Your task to perform on an android device: check android version Image 0: 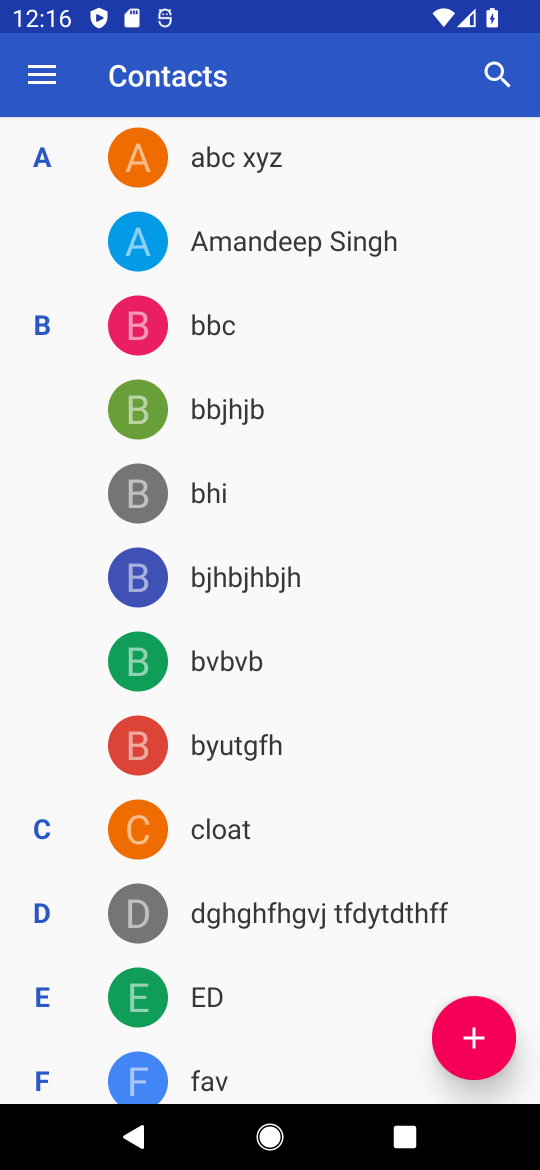
Step 0: press back button
Your task to perform on an android device: check android version Image 1: 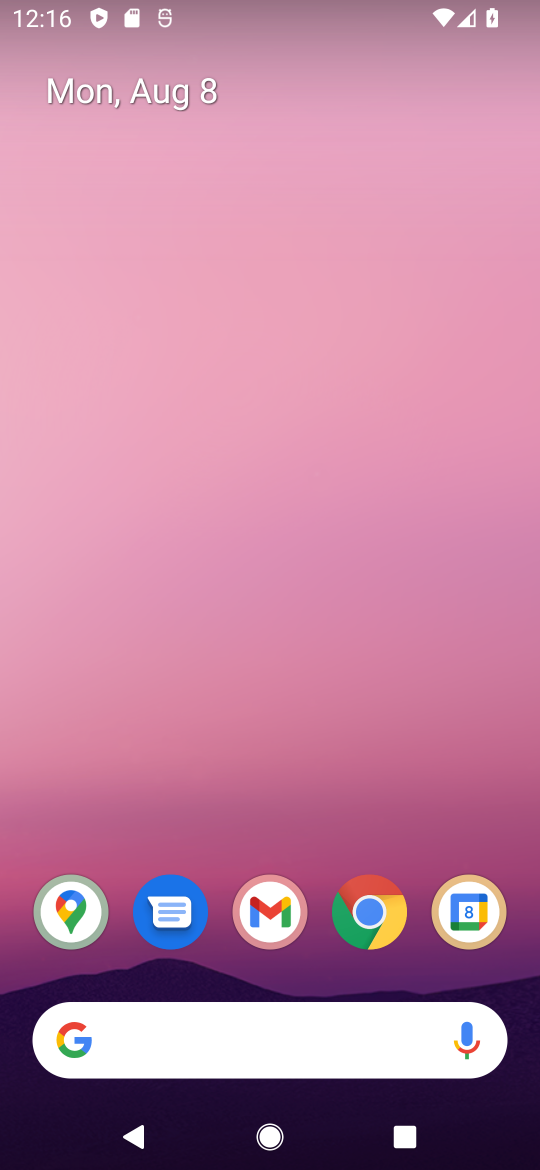
Step 1: drag from (287, 536) to (360, 10)
Your task to perform on an android device: check android version Image 2: 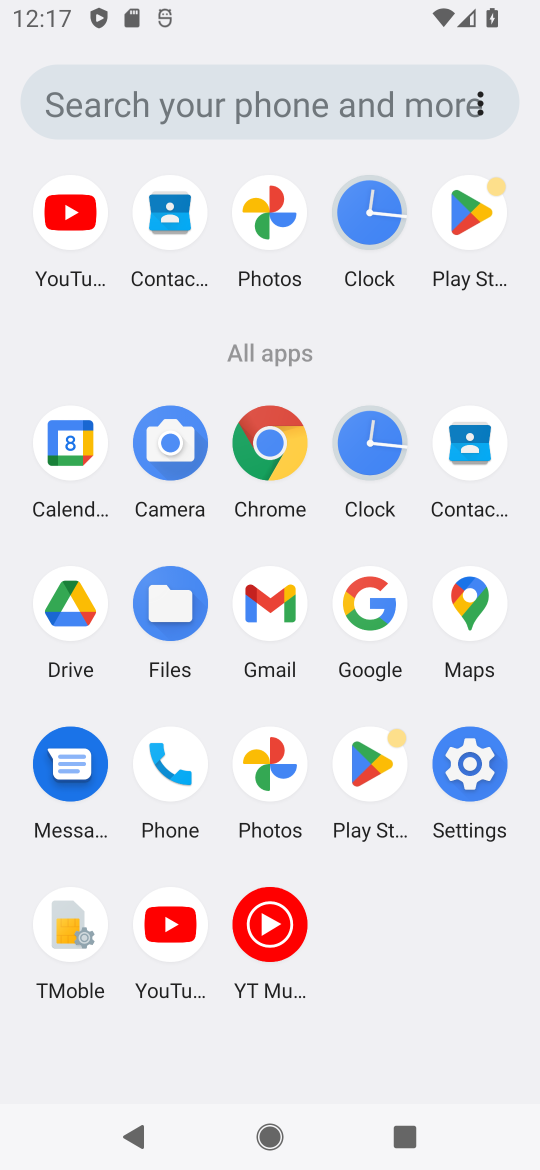
Step 2: click (474, 782)
Your task to perform on an android device: check android version Image 3: 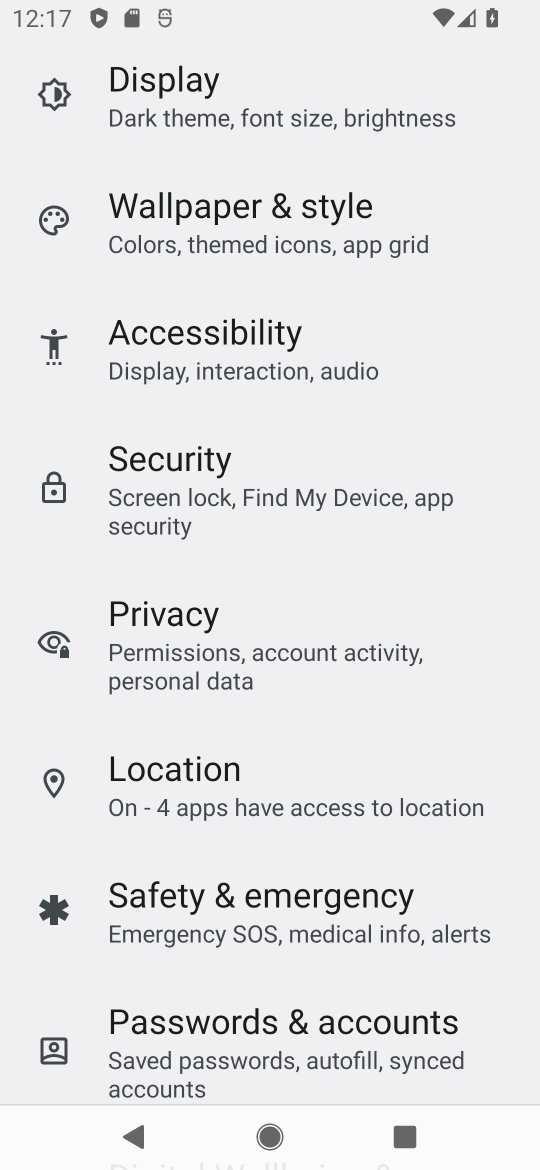
Step 3: drag from (303, 170) to (237, 1128)
Your task to perform on an android device: check android version Image 4: 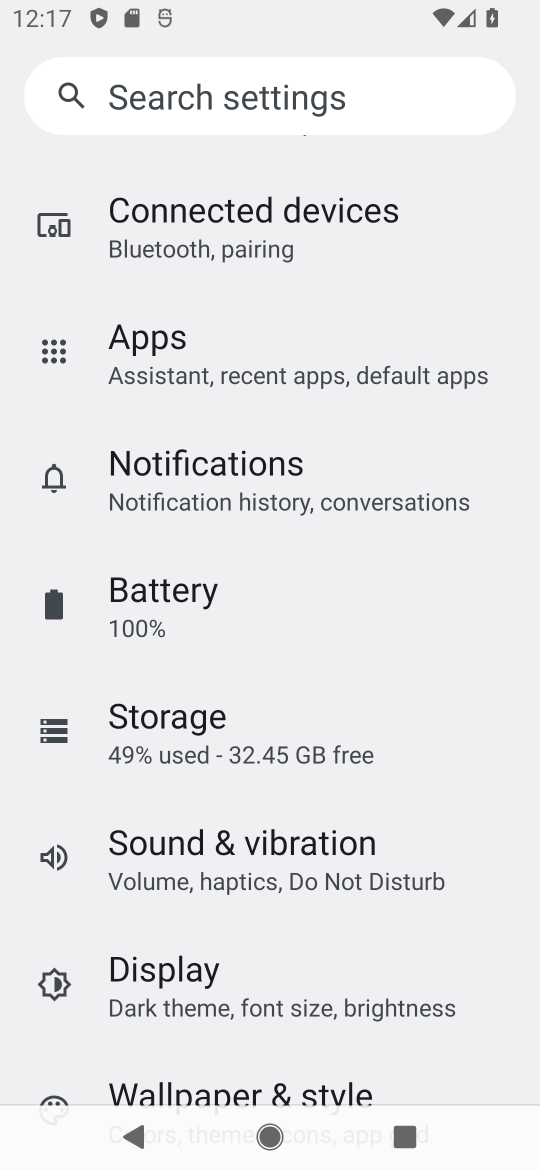
Step 4: drag from (367, 340) to (298, 1119)
Your task to perform on an android device: check android version Image 5: 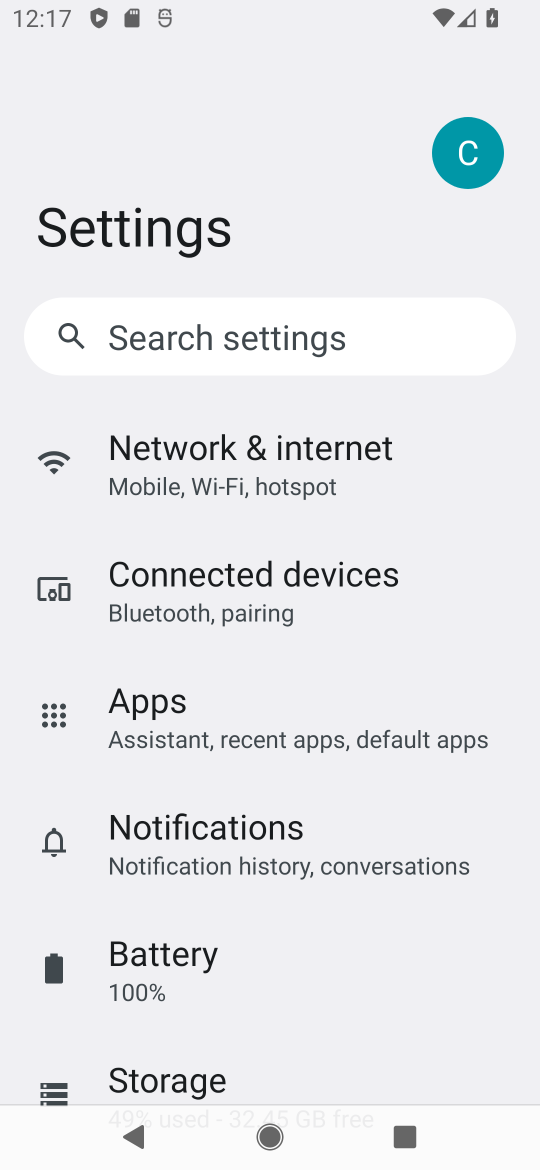
Step 5: drag from (211, 1063) to (334, 126)
Your task to perform on an android device: check android version Image 6: 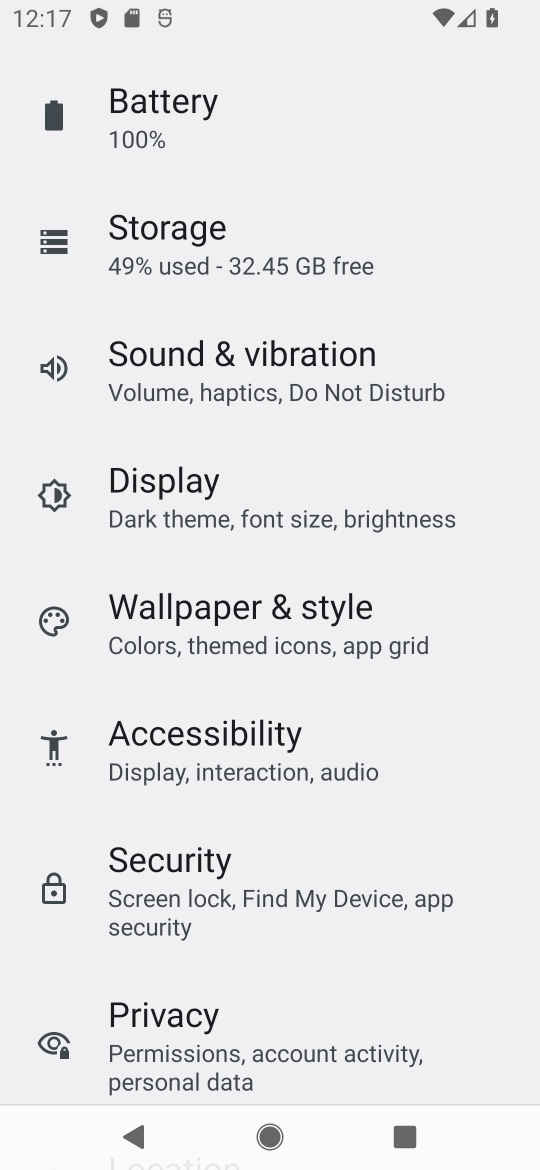
Step 6: drag from (213, 1063) to (380, 109)
Your task to perform on an android device: check android version Image 7: 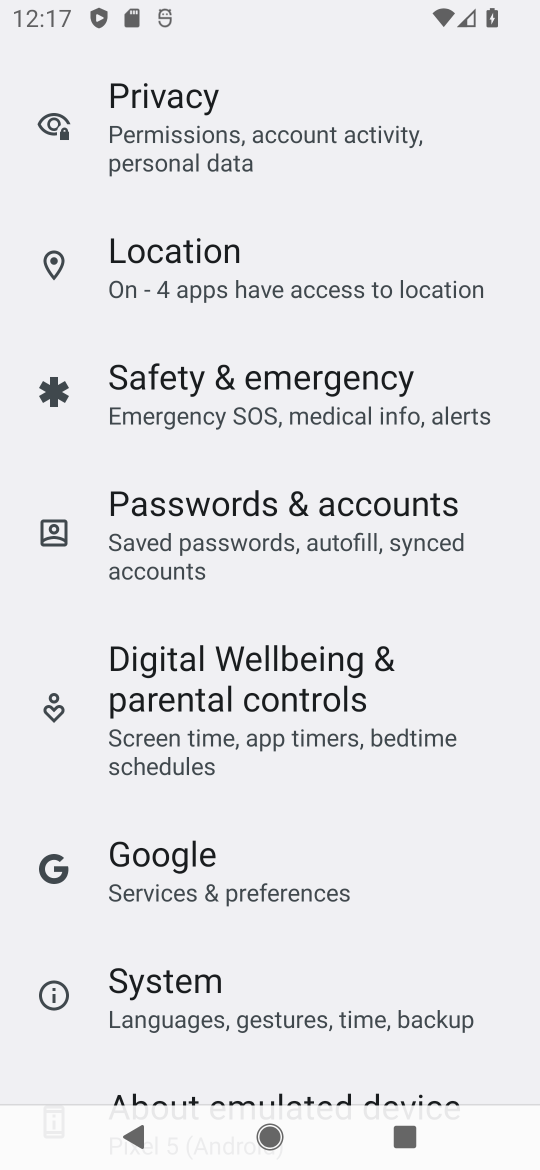
Step 7: drag from (285, 1018) to (396, 27)
Your task to perform on an android device: check android version Image 8: 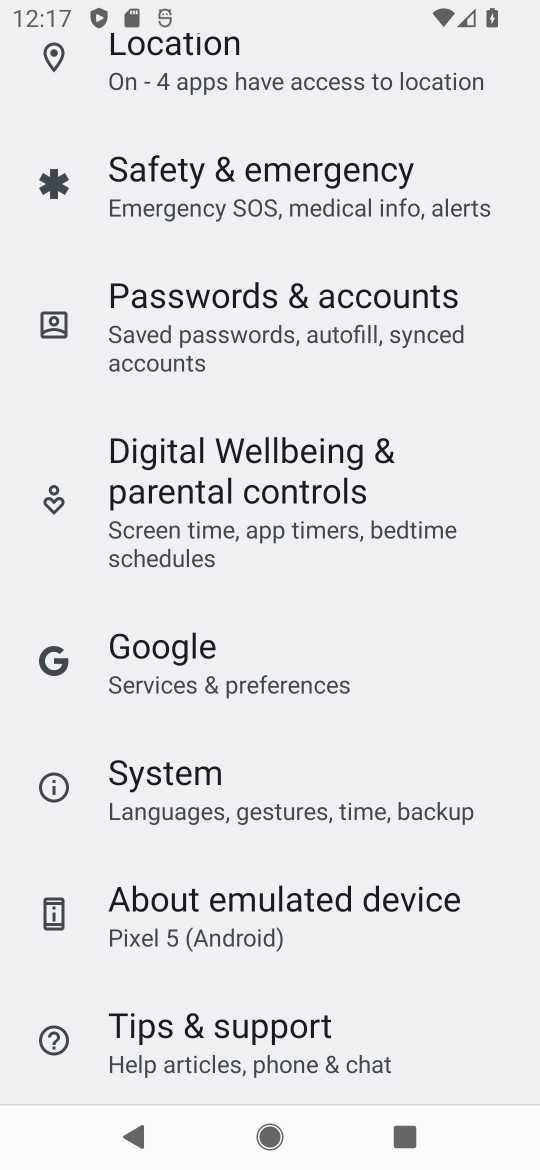
Step 8: click (235, 903)
Your task to perform on an android device: check android version Image 9: 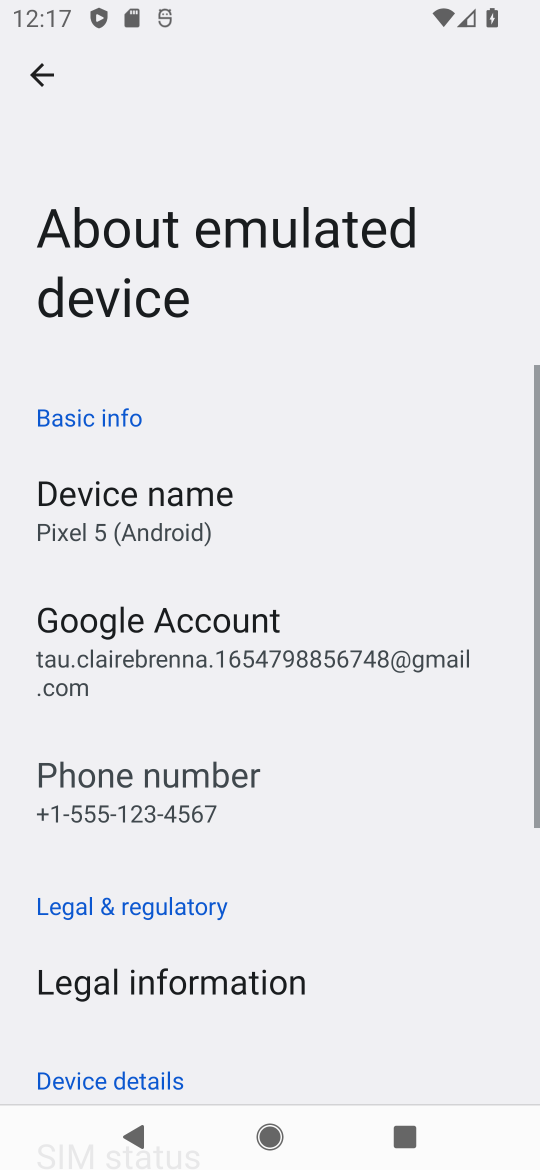
Step 9: drag from (182, 1001) to (314, 264)
Your task to perform on an android device: check android version Image 10: 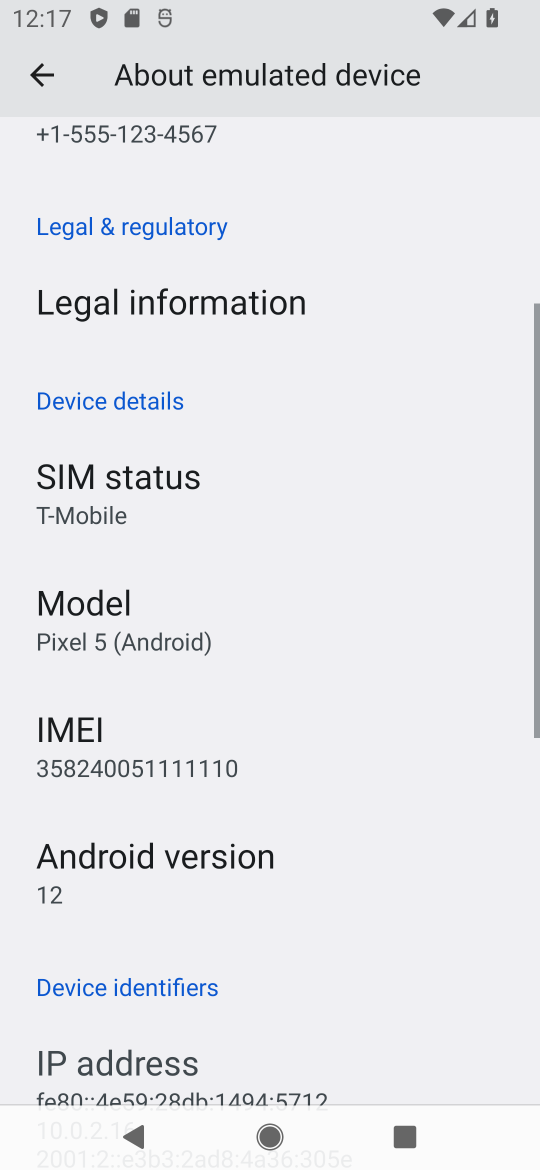
Step 10: click (168, 892)
Your task to perform on an android device: check android version Image 11: 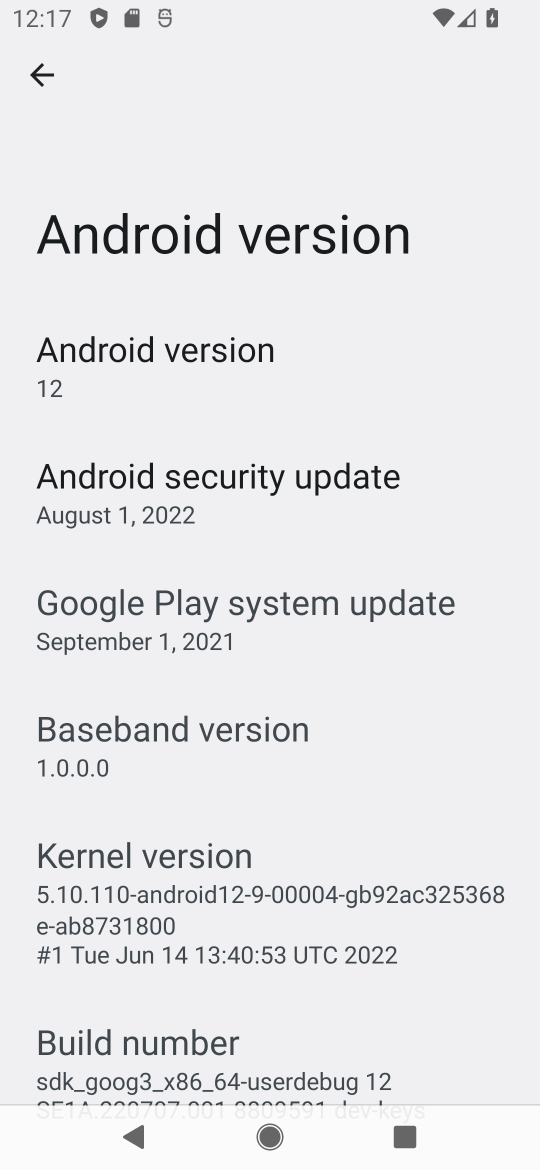
Step 11: click (171, 367)
Your task to perform on an android device: check android version Image 12: 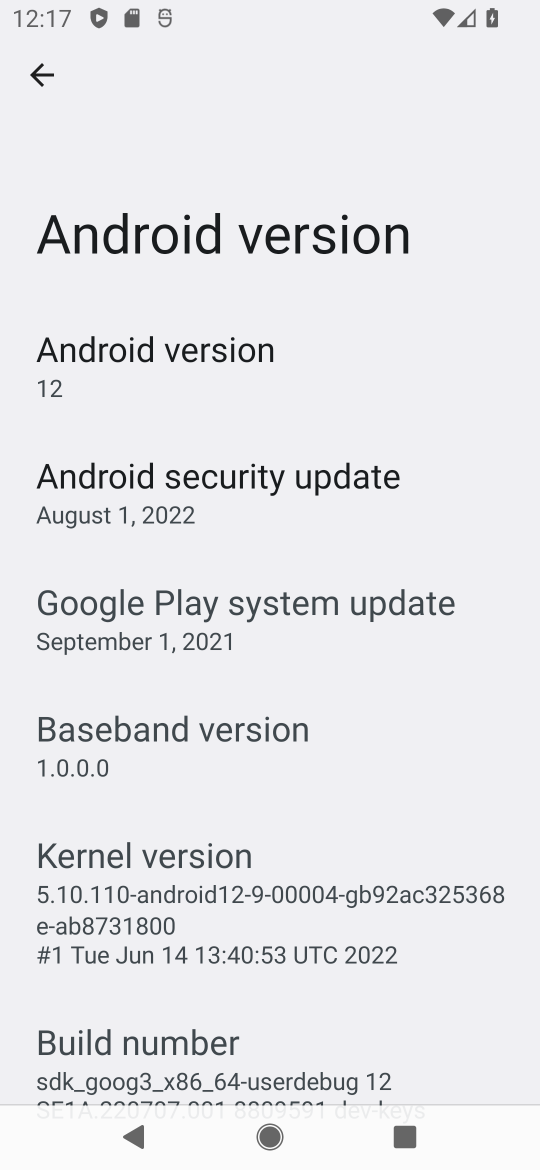
Step 12: task complete